Your task to perform on an android device: open a new tab in the chrome app Image 0: 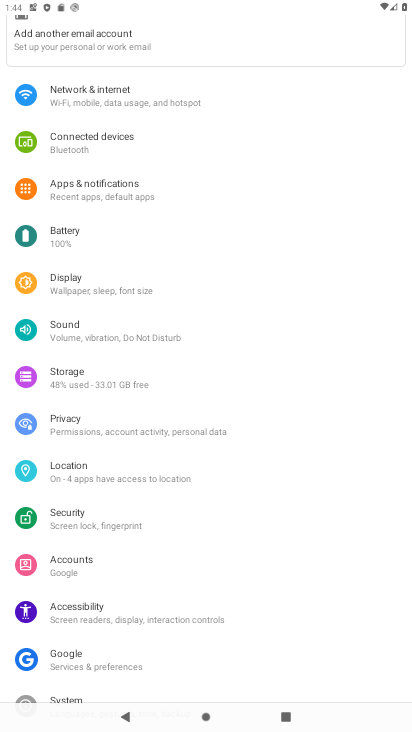
Step 0: press home button
Your task to perform on an android device: open a new tab in the chrome app Image 1: 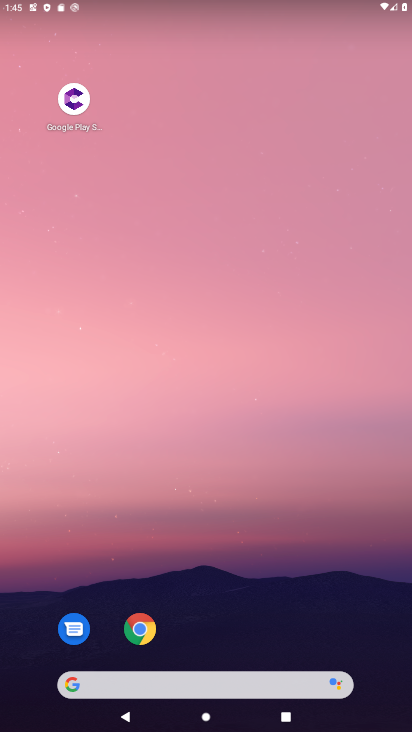
Step 1: click (141, 633)
Your task to perform on an android device: open a new tab in the chrome app Image 2: 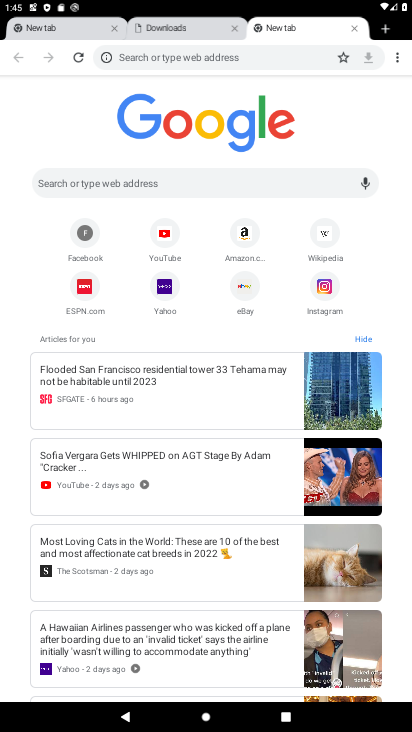
Step 2: click (382, 31)
Your task to perform on an android device: open a new tab in the chrome app Image 3: 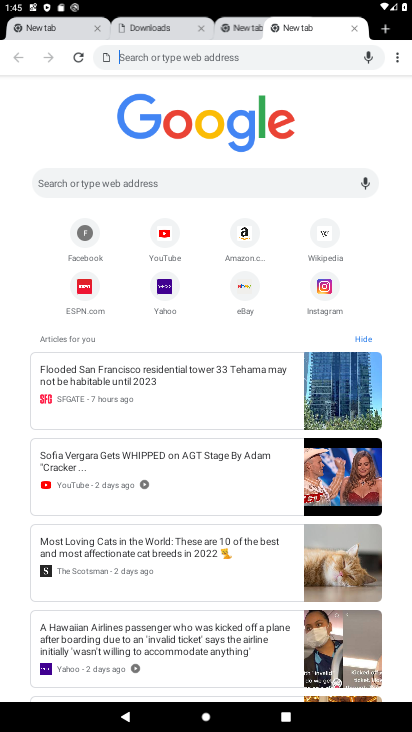
Step 3: task complete